Your task to perform on an android device: Clear all items from cart on bestbuy.com. Search for "razer deathadder" on bestbuy.com, select the first entry, and add it to the cart. Image 0: 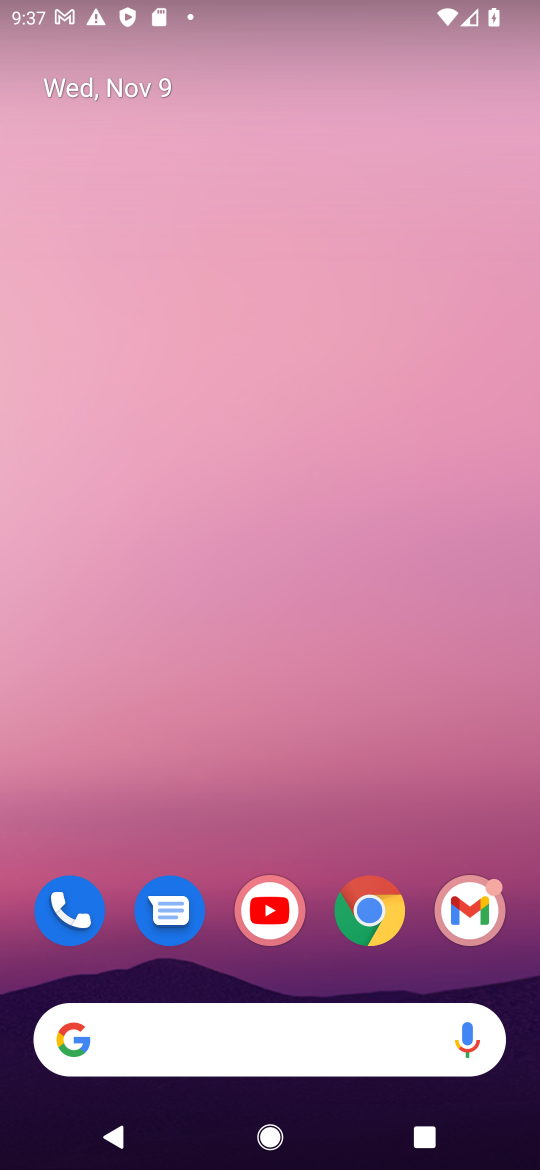
Step 0: click (354, 906)
Your task to perform on an android device: Clear all items from cart on bestbuy.com. Search for "razer deathadder" on bestbuy.com, select the first entry, and add it to the cart. Image 1: 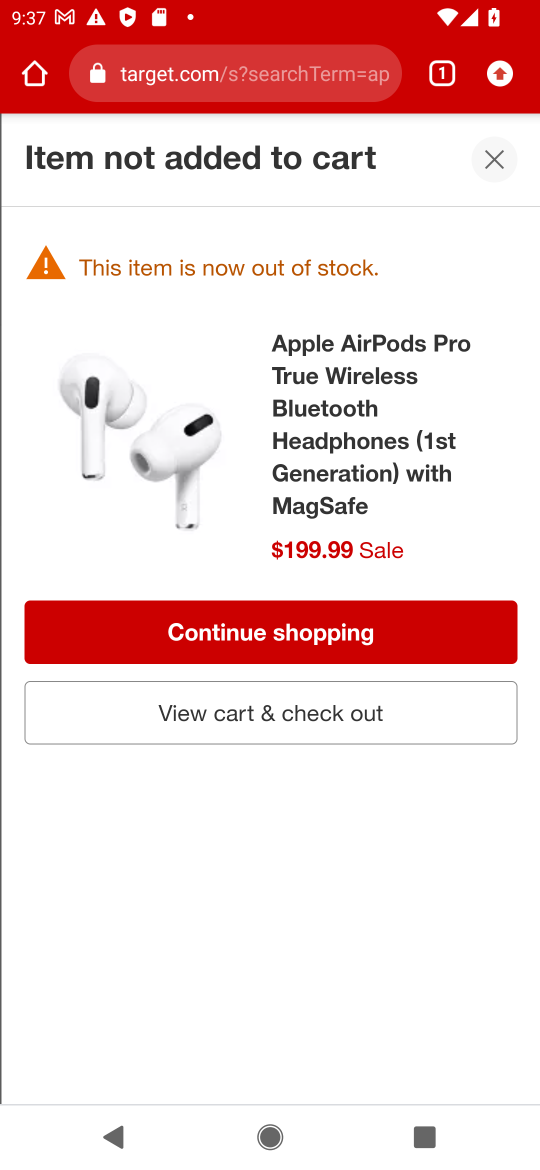
Step 1: click (215, 73)
Your task to perform on an android device: Clear all items from cart on bestbuy.com. Search for "razer deathadder" on bestbuy.com, select the first entry, and add it to the cart. Image 2: 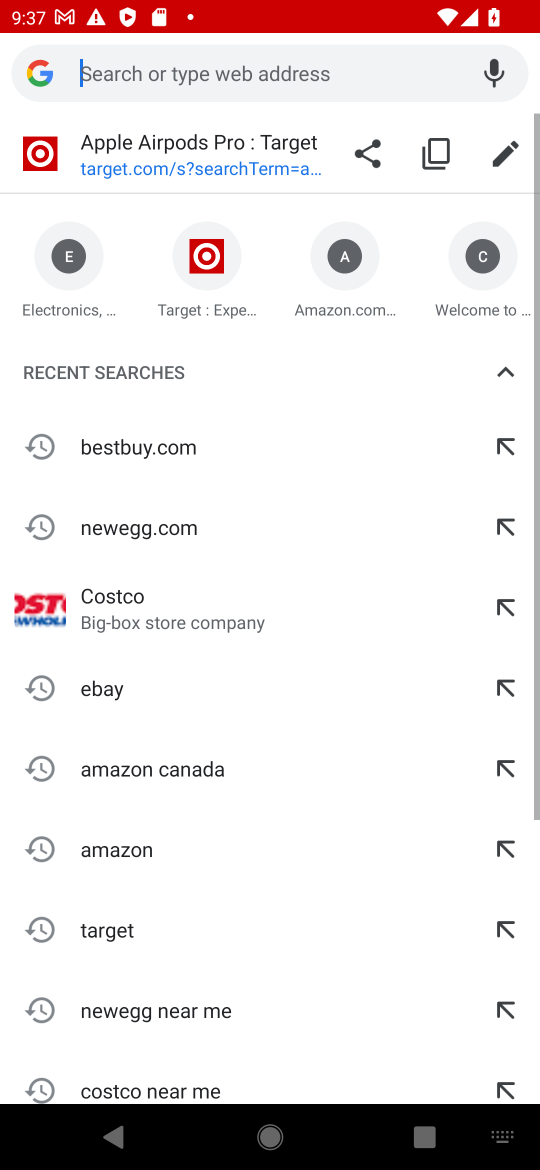
Step 2: click (138, 440)
Your task to perform on an android device: Clear all items from cart on bestbuy.com. Search for "razer deathadder" on bestbuy.com, select the first entry, and add it to the cart. Image 3: 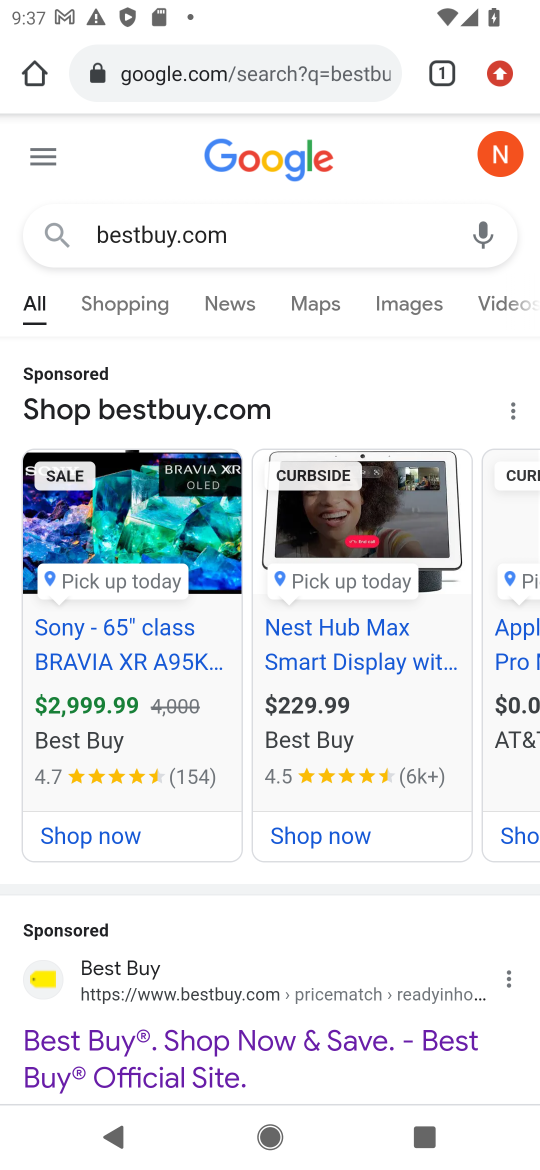
Step 3: drag from (242, 894) to (263, 395)
Your task to perform on an android device: Clear all items from cart on bestbuy.com. Search for "razer deathadder" on bestbuy.com, select the first entry, and add it to the cart. Image 4: 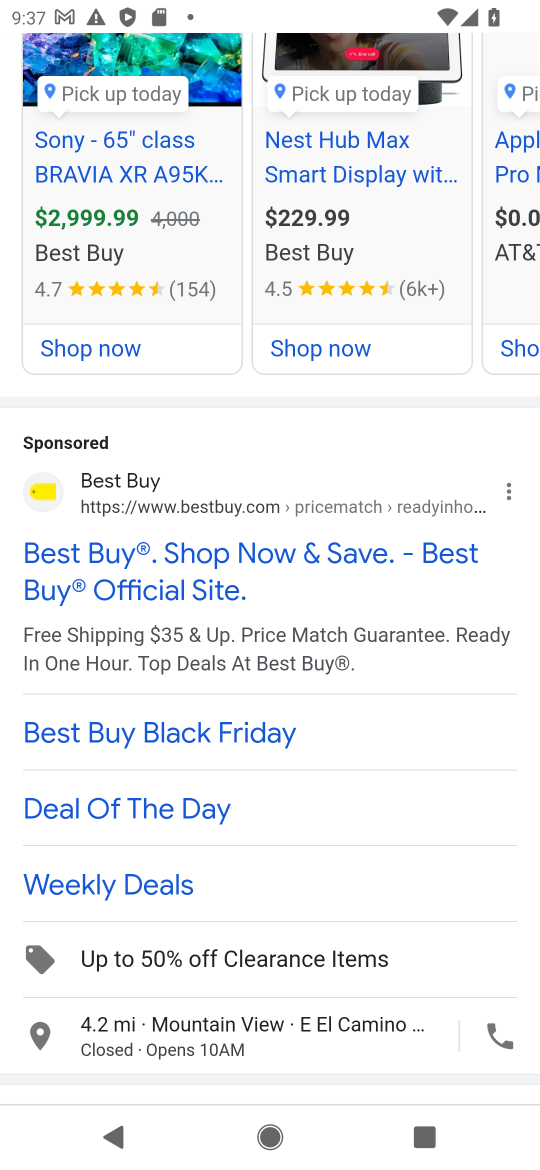
Step 4: drag from (216, 783) to (247, 268)
Your task to perform on an android device: Clear all items from cart on bestbuy.com. Search for "razer deathadder" on bestbuy.com, select the first entry, and add it to the cart. Image 5: 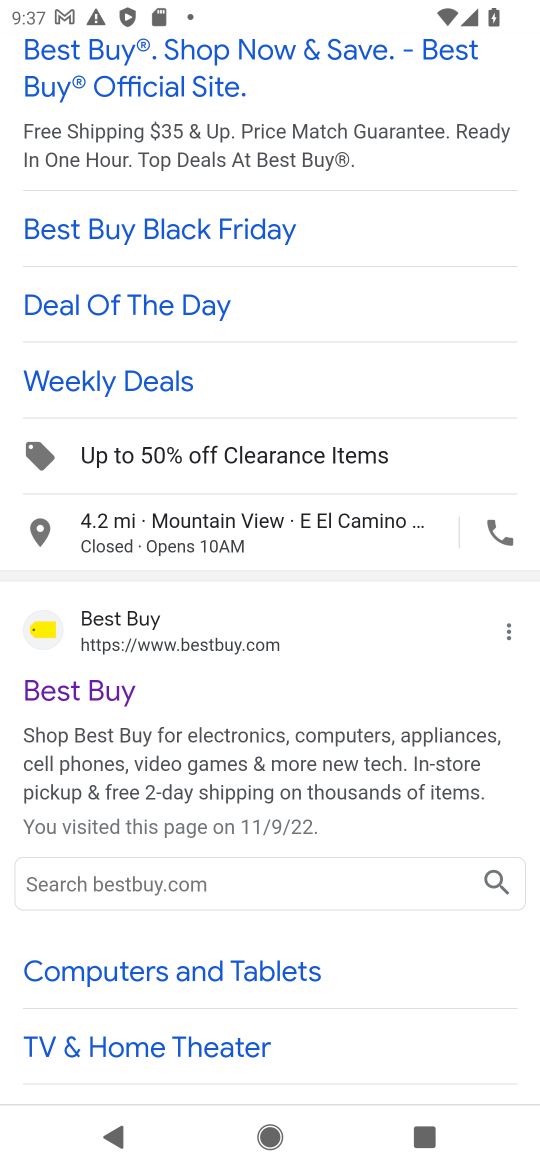
Step 5: click (84, 696)
Your task to perform on an android device: Clear all items from cart on bestbuy.com. Search for "razer deathadder" on bestbuy.com, select the first entry, and add it to the cart. Image 6: 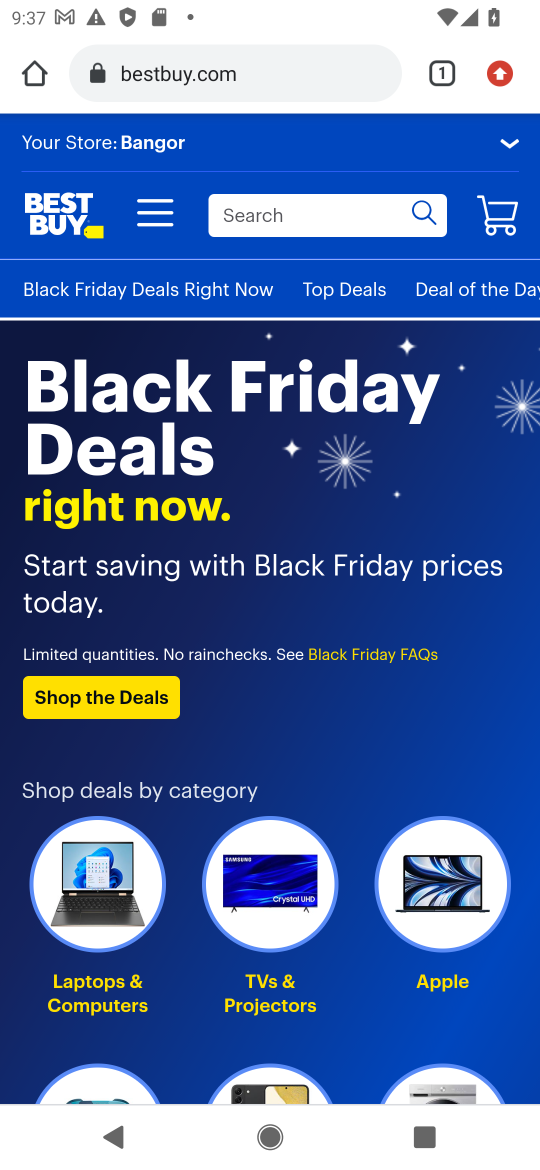
Step 6: click (504, 231)
Your task to perform on an android device: Clear all items from cart on bestbuy.com. Search for "razer deathadder" on bestbuy.com, select the first entry, and add it to the cart. Image 7: 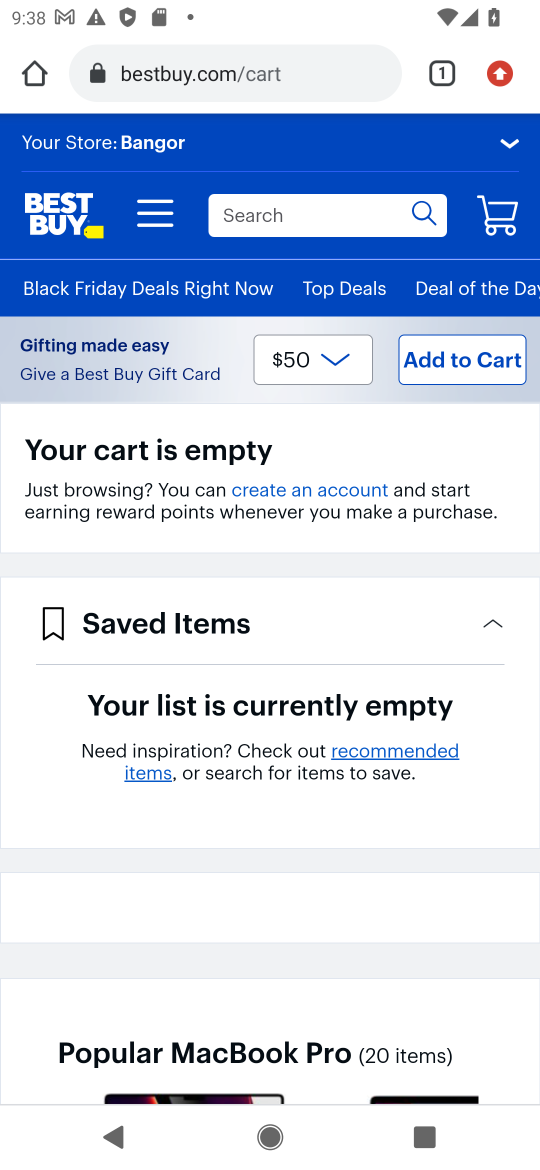
Step 7: click (292, 224)
Your task to perform on an android device: Clear all items from cart on bestbuy.com. Search for "razer deathadder" on bestbuy.com, select the first entry, and add it to the cart. Image 8: 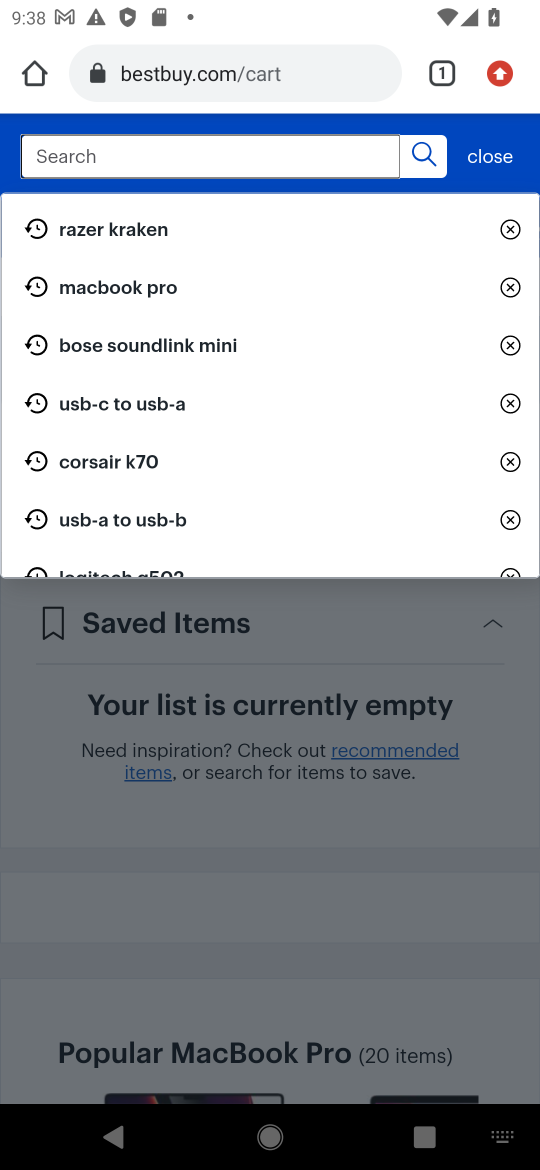
Step 8: type "razer deathadder"
Your task to perform on an android device: Clear all items from cart on bestbuy.com. Search for "razer deathadder" on bestbuy.com, select the first entry, and add it to the cart. Image 9: 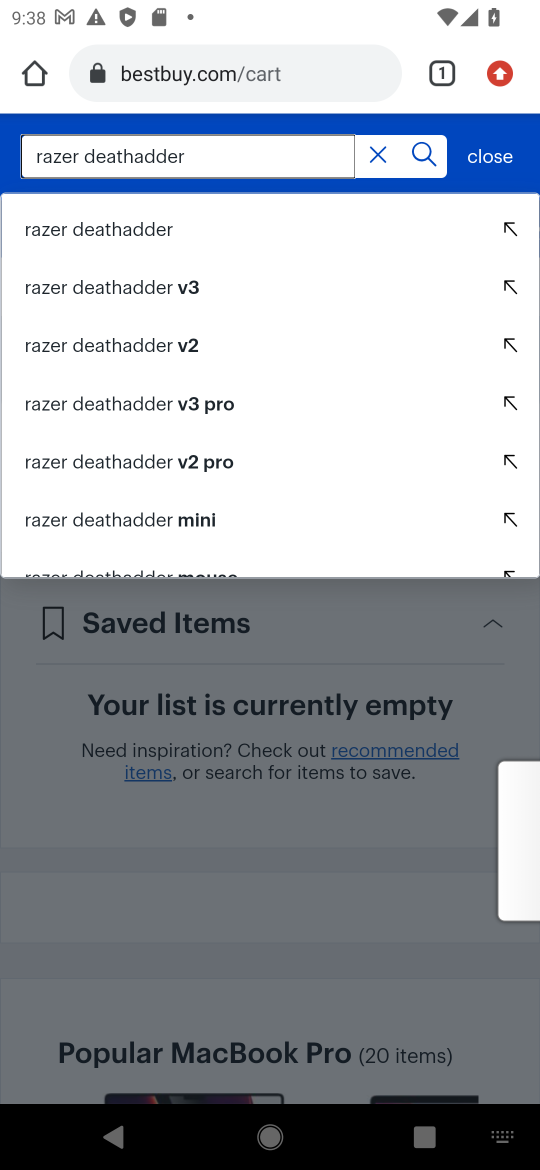
Step 9: click (158, 237)
Your task to perform on an android device: Clear all items from cart on bestbuy.com. Search for "razer deathadder" on bestbuy.com, select the first entry, and add it to the cart. Image 10: 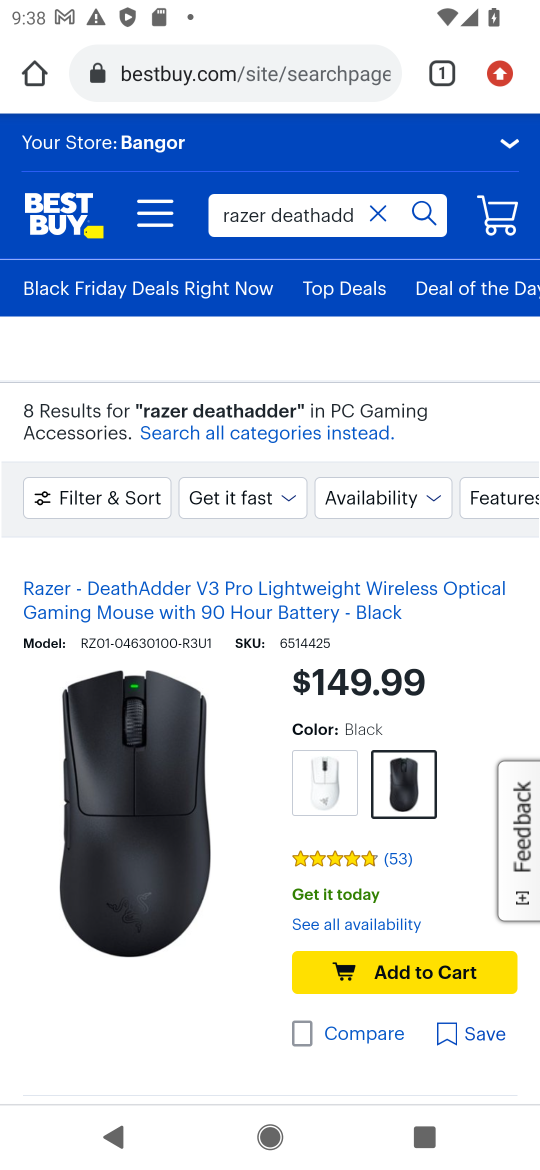
Step 10: click (392, 965)
Your task to perform on an android device: Clear all items from cart on bestbuy.com. Search for "razer deathadder" on bestbuy.com, select the first entry, and add it to the cart. Image 11: 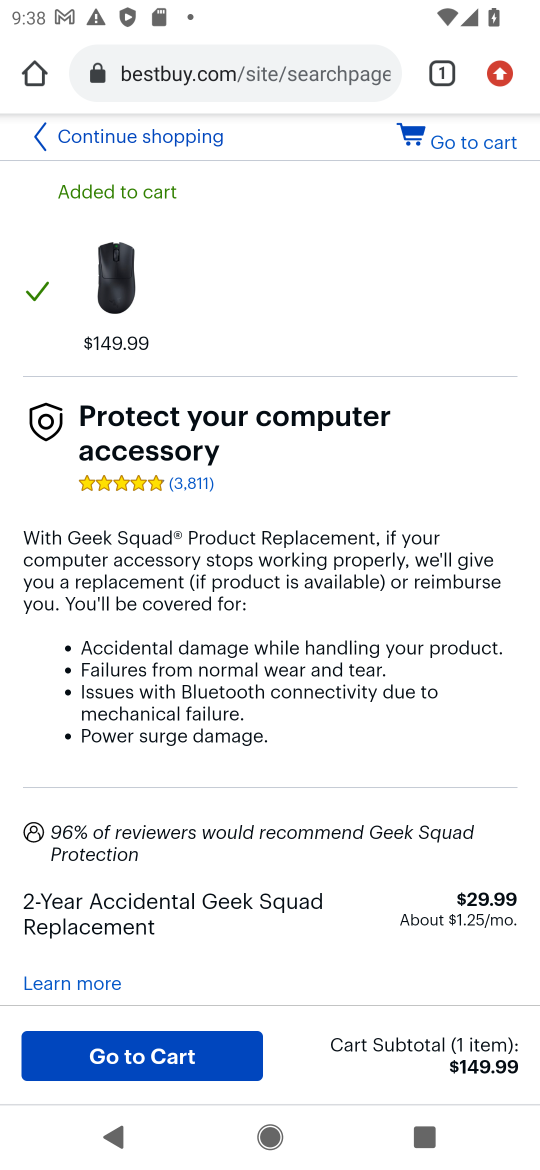
Step 11: task complete